Your task to perform on an android device: change the upload size in google photos Image 0: 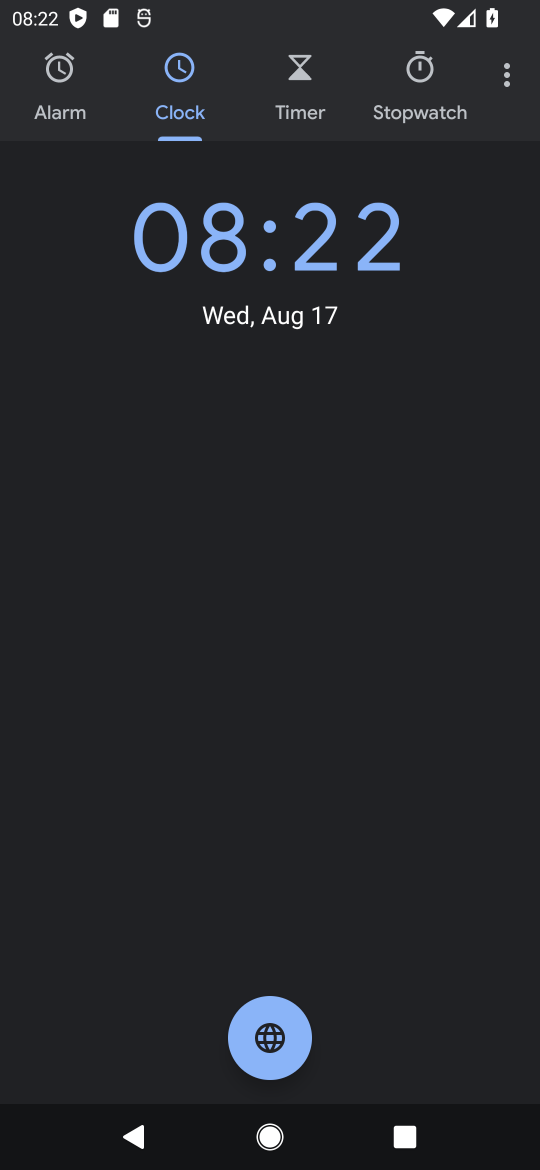
Step 0: press home button
Your task to perform on an android device: change the upload size in google photos Image 1: 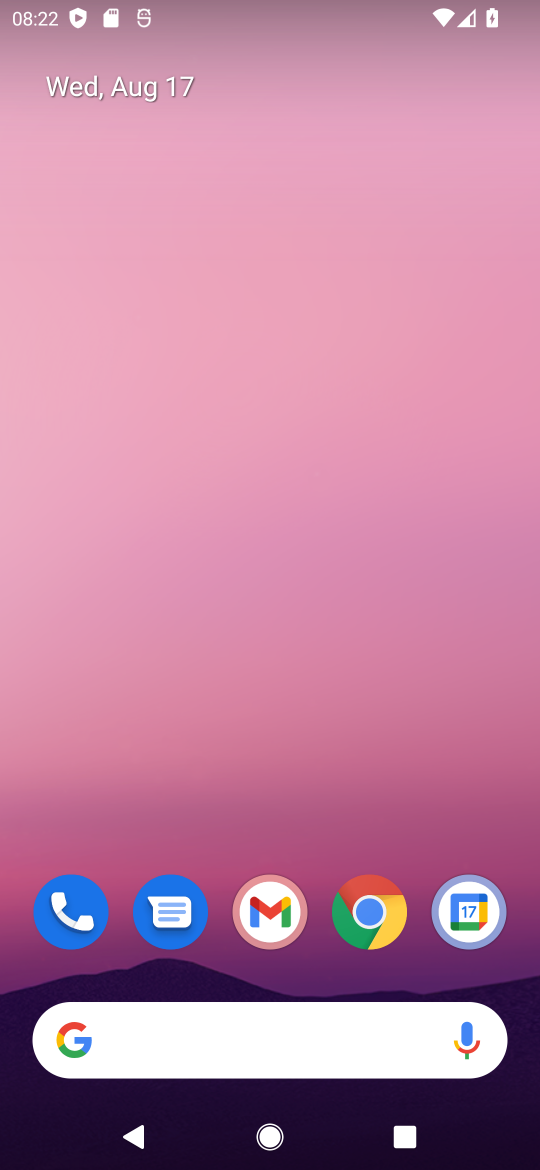
Step 1: drag from (256, 1016) to (202, 292)
Your task to perform on an android device: change the upload size in google photos Image 2: 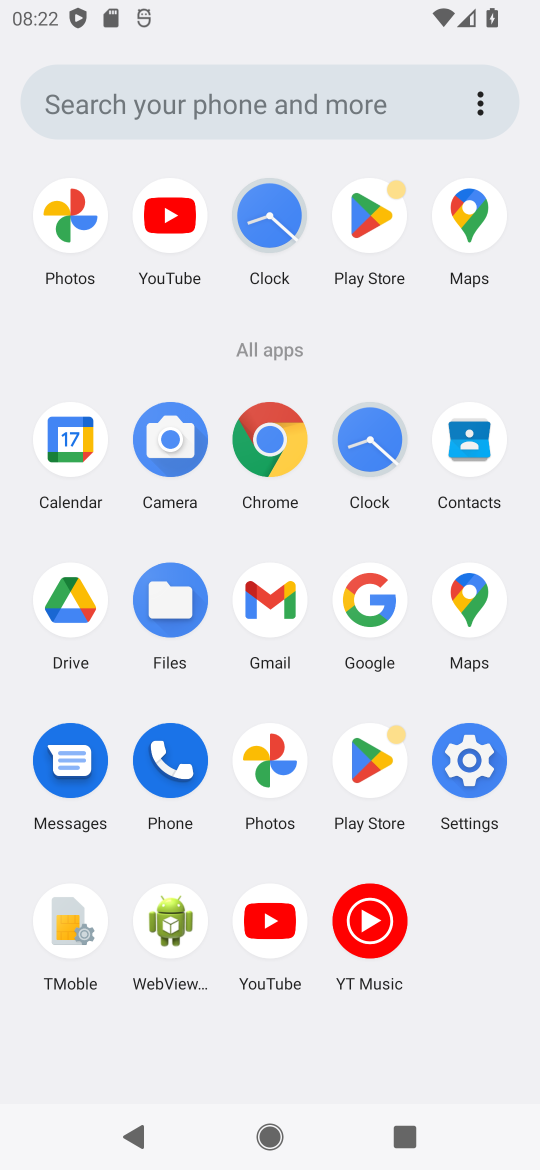
Step 2: click (267, 768)
Your task to perform on an android device: change the upload size in google photos Image 3: 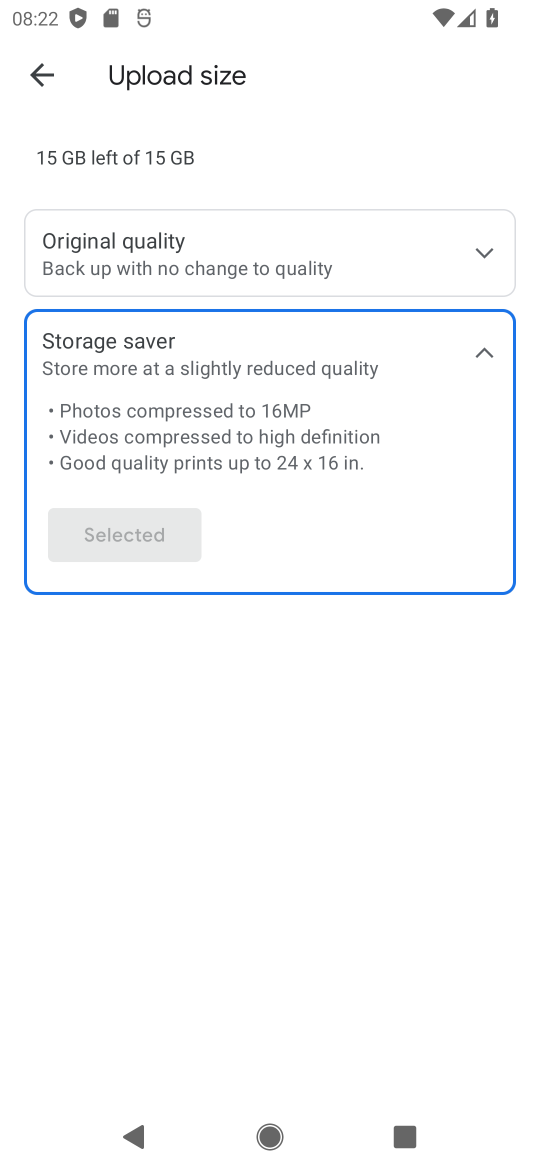
Step 3: click (42, 67)
Your task to perform on an android device: change the upload size in google photos Image 4: 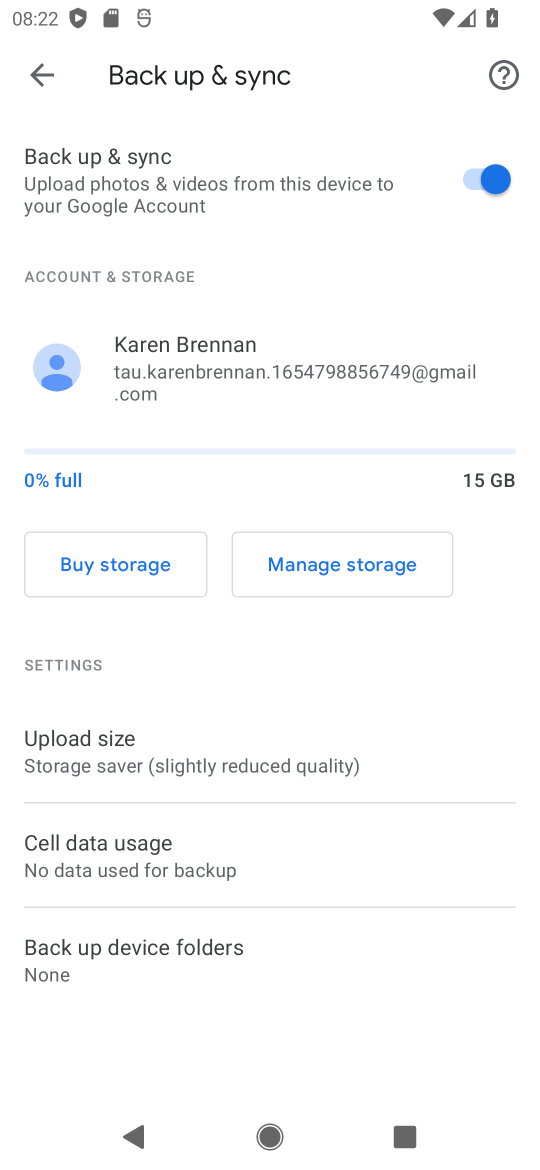
Step 4: click (91, 198)
Your task to perform on an android device: change the upload size in google photos Image 5: 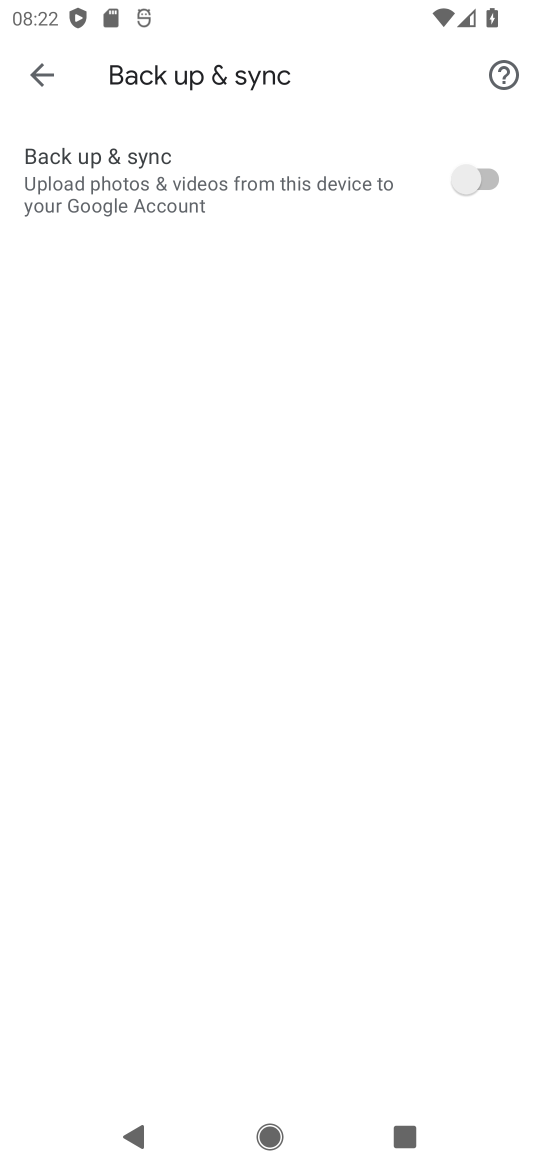
Step 5: click (28, 67)
Your task to perform on an android device: change the upload size in google photos Image 6: 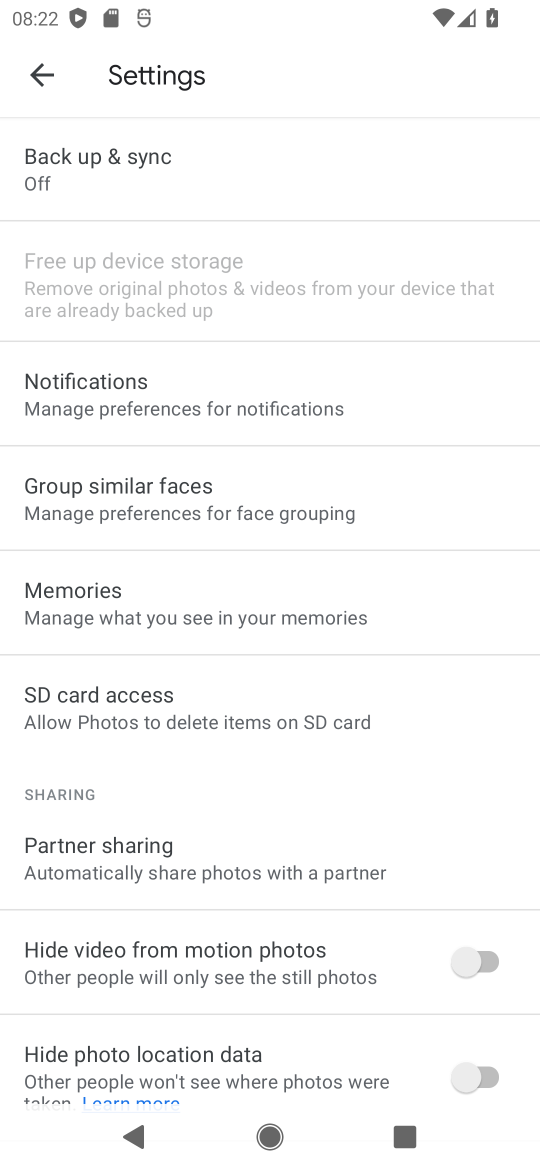
Step 6: click (56, 164)
Your task to perform on an android device: change the upload size in google photos Image 7: 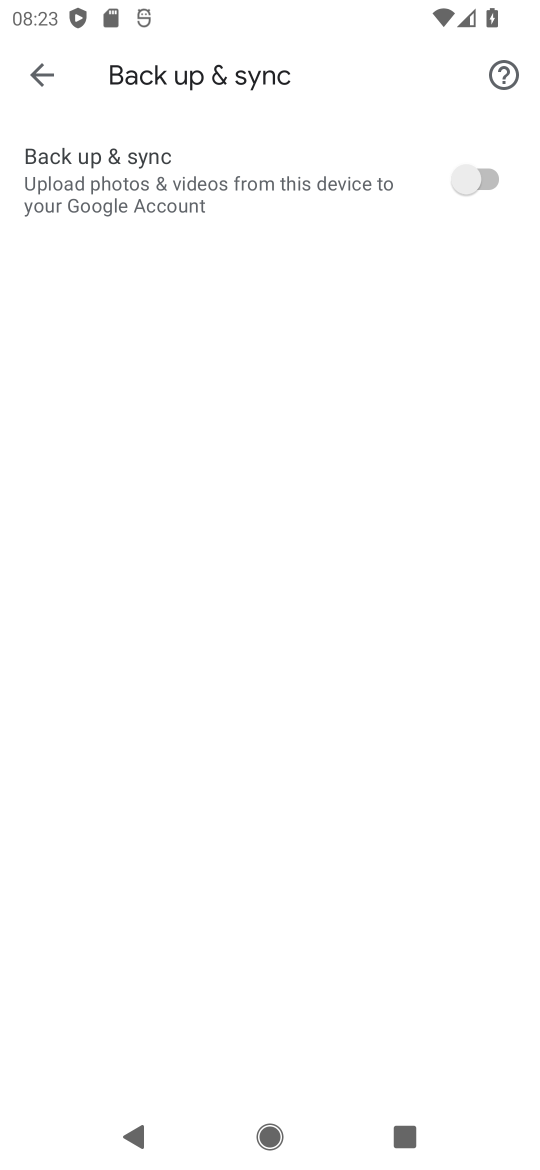
Step 7: click (480, 171)
Your task to perform on an android device: change the upload size in google photos Image 8: 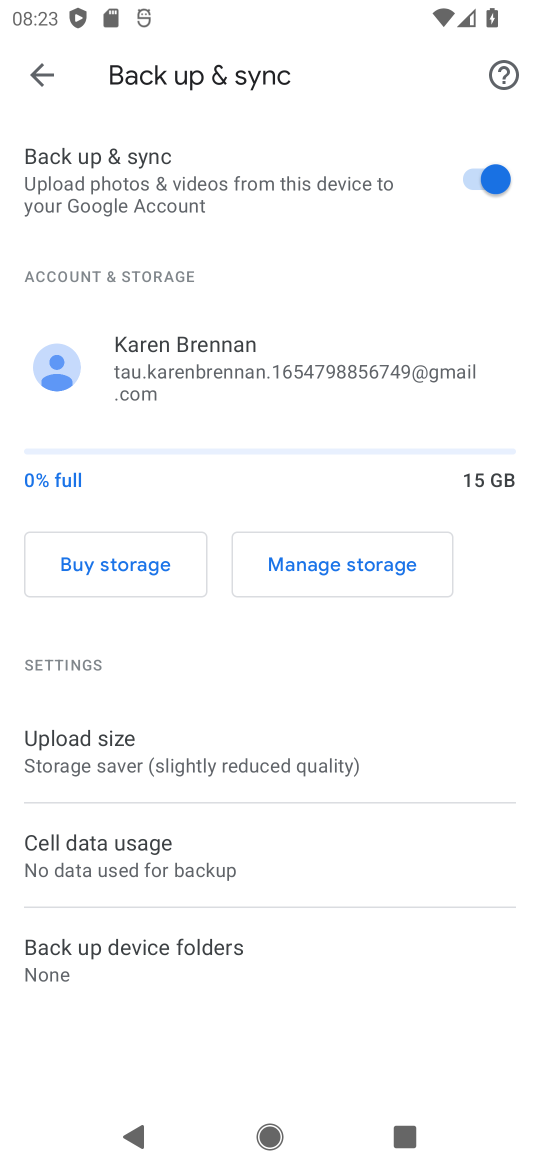
Step 8: click (124, 753)
Your task to perform on an android device: change the upload size in google photos Image 9: 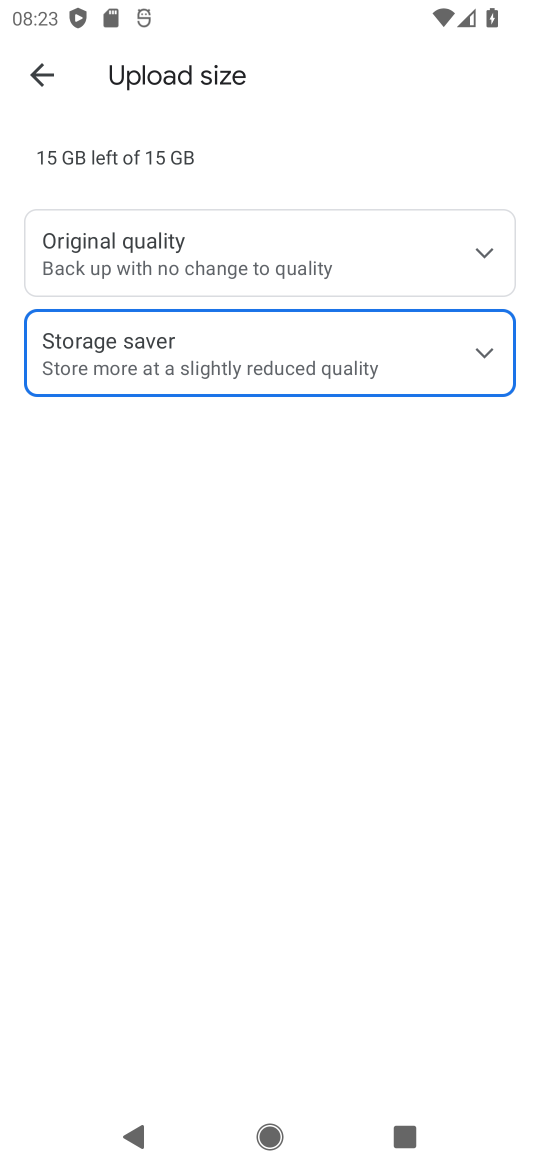
Step 9: click (80, 254)
Your task to perform on an android device: change the upload size in google photos Image 10: 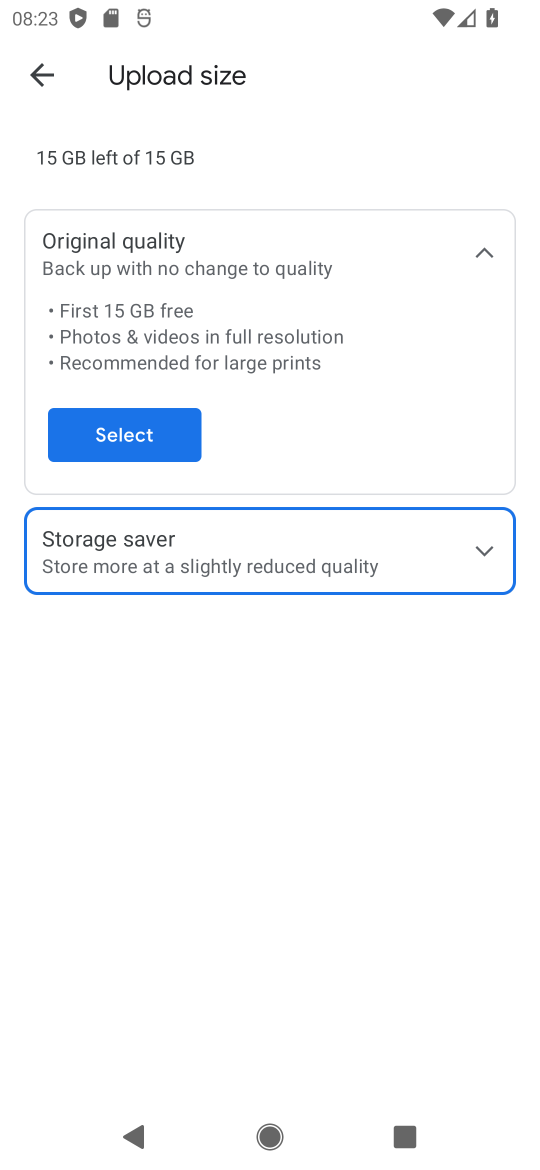
Step 10: click (120, 440)
Your task to perform on an android device: change the upload size in google photos Image 11: 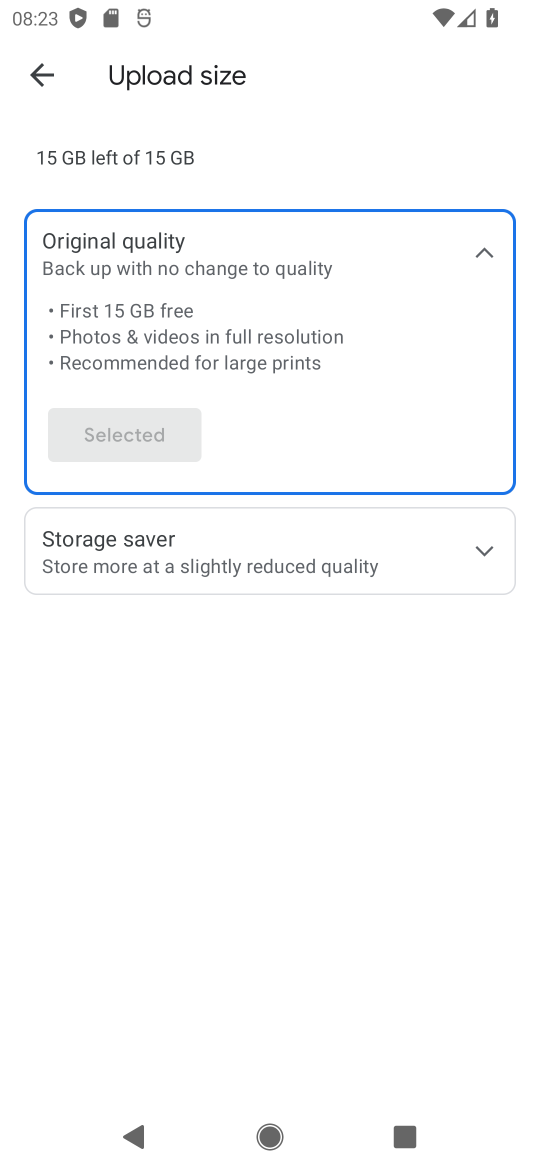
Step 11: task complete